Your task to perform on an android device: set the timer Image 0: 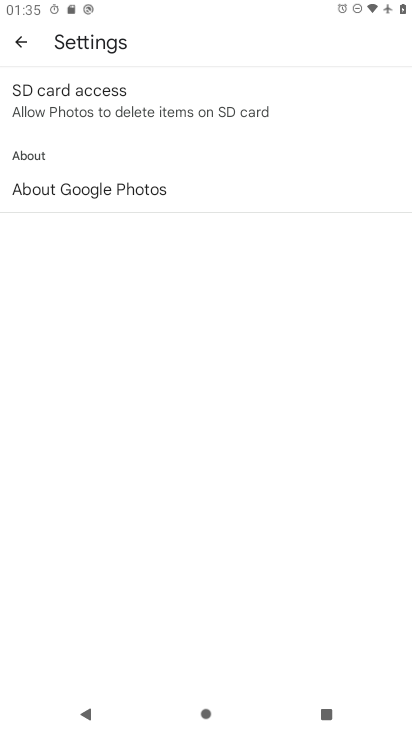
Step 0: press home button
Your task to perform on an android device: set the timer Image 1: 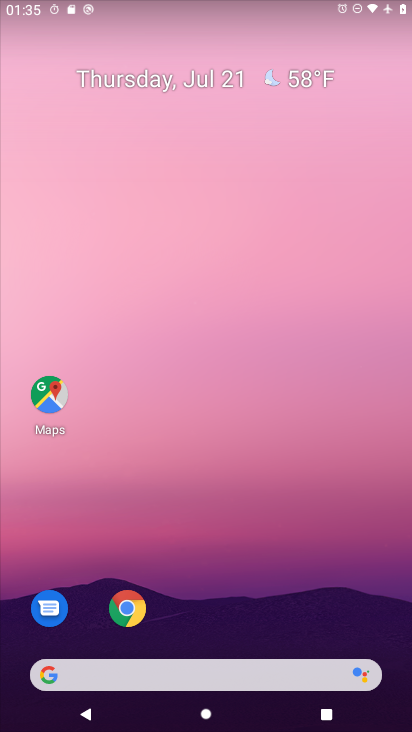
Step 1: drag from (191, 604) to (236, 60)
Your task to perform on an android device: set the timer Image 2: 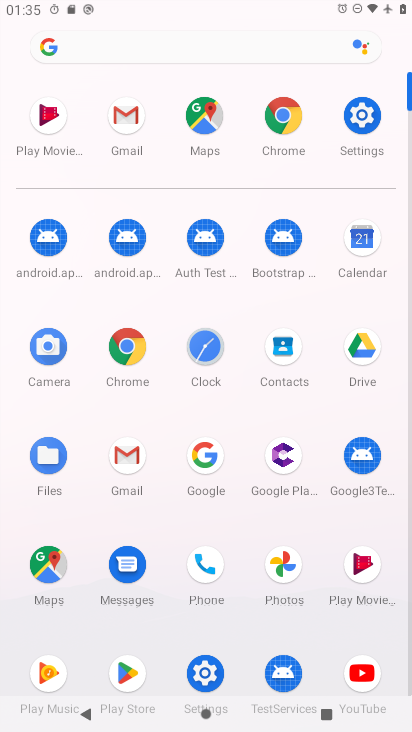
Step 2: click (206, 352)
Your task to perform on an android device: set the timer Image 3: 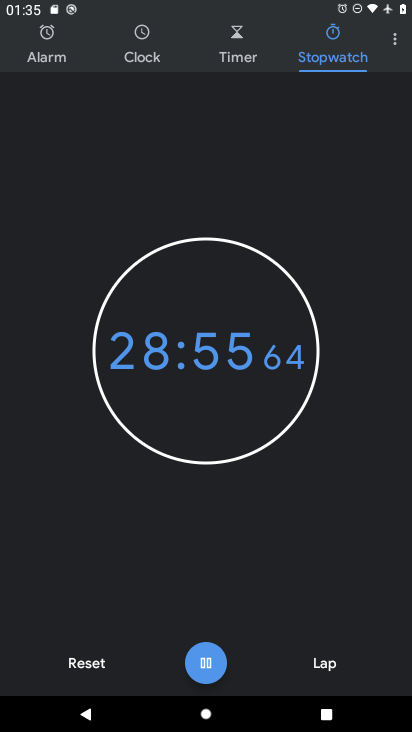
Step 3: click (233, 36)
Your task to perform on an android device: set the timer Image 4: 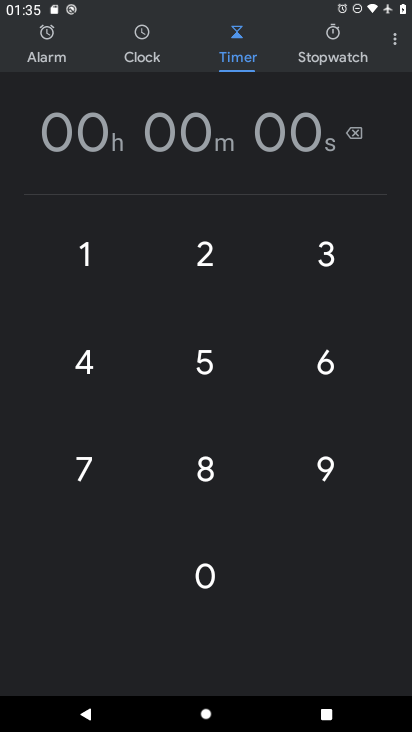
Step 4: click (212, 260)
Your task to perform on an android device: set the timer Image 5: 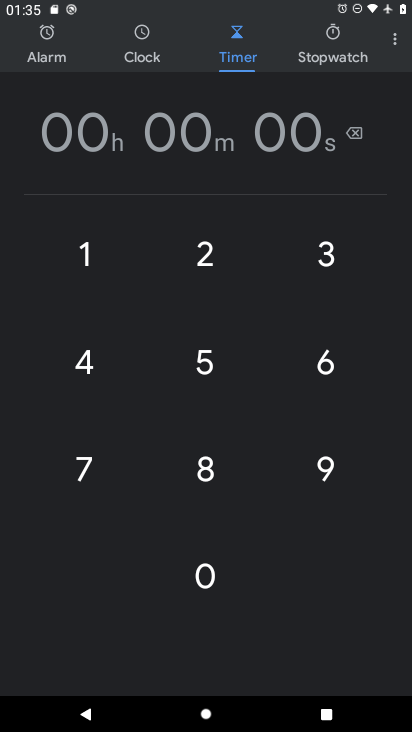
Step 5: click (212, 260)
Your task to perform on an android device: set the timer Image 6: 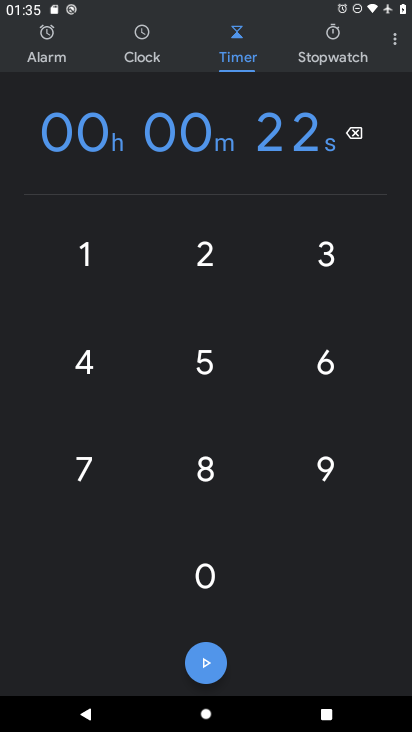
Step 6: click (310, 253)
Your task to perform on an android device: set the timer Image 7: 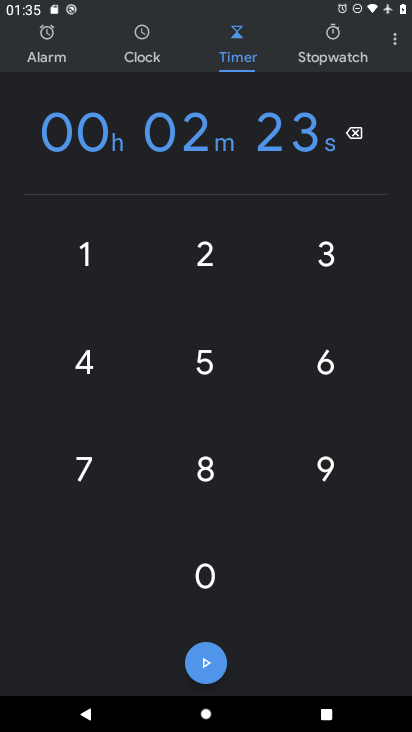
Step 7: click (95, 251)
Your task to perform on an android device: set the timer Image 8: 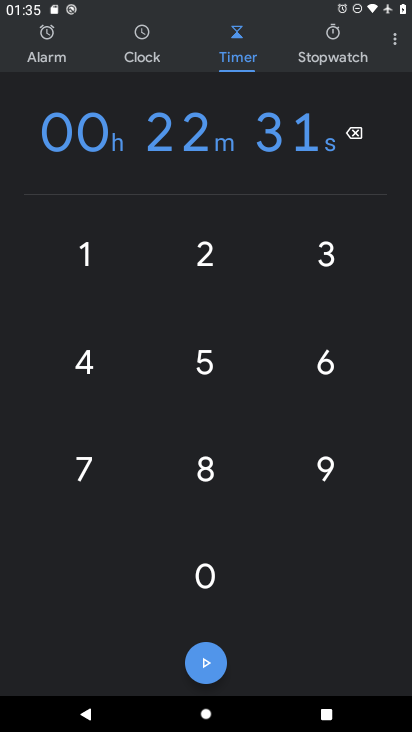
Step 8: click (95, 367)
Your task to perform on an android device: set the timer Image 9: 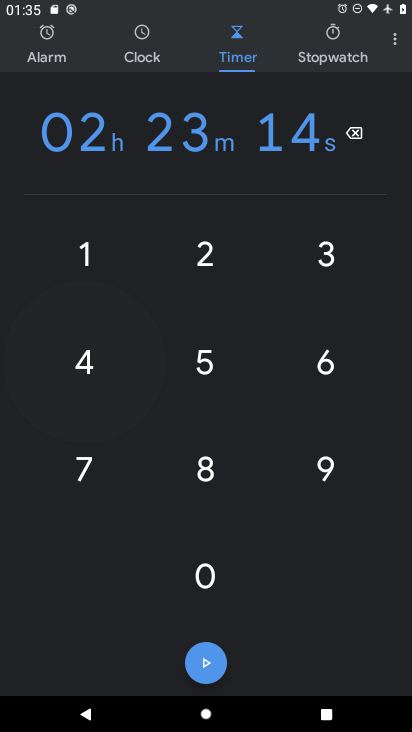
Step 9: click (196, 363)
Your task to perform on an android device: set the timer Image 10: 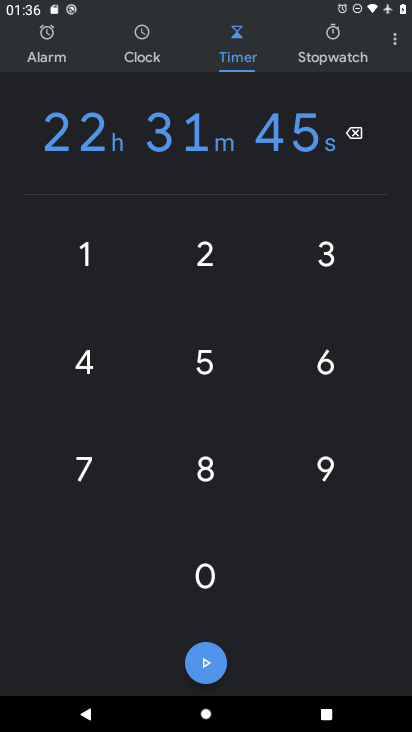
Step 10: click (206, 661)
Your task to perform on an android device: set the timer Image 11: 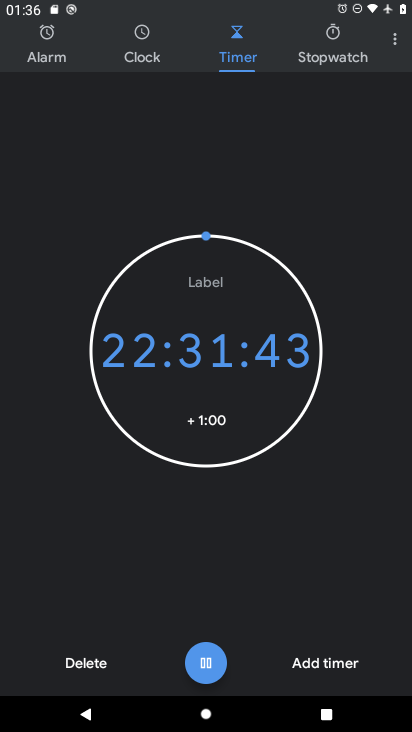
Step 11: task complete